Your task to perform on an android device: Do I have any events this weekend? Image 0: 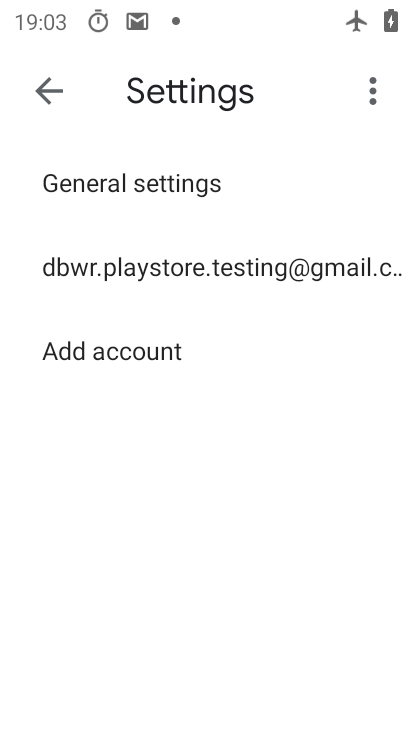
Step 0: press home button
Your task to perform on an android device: Do I have any events this weekend? Image 1: 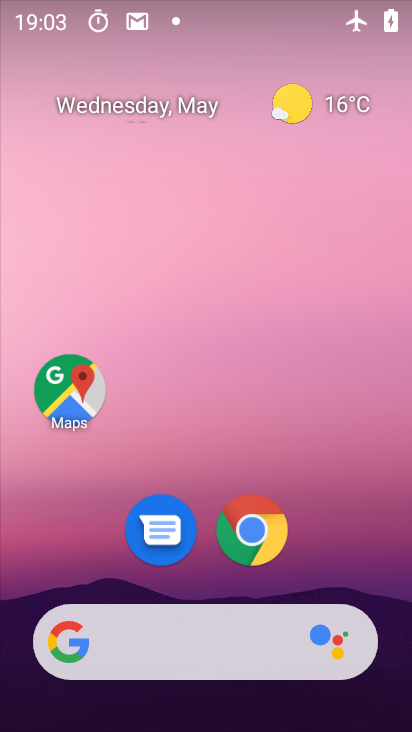
Step 1: drag from (204, 491) to (274, 166)
Your task to perform on an android device: Do I have any events this weekend? Image 2: 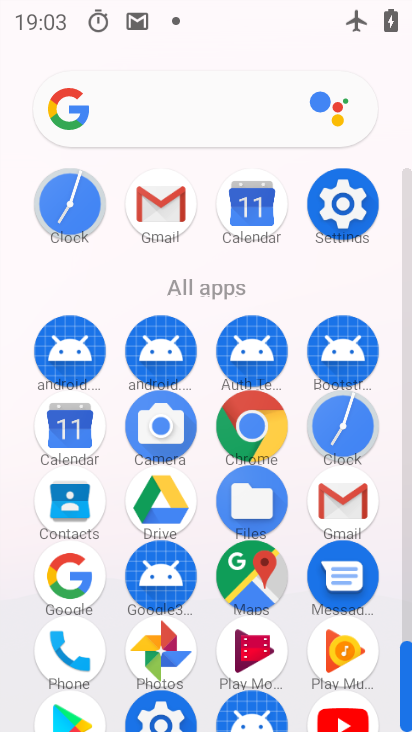
Step 2: click (68, 436)
Your task to perform on an android device: Do I have any events this weekend? Image 3: 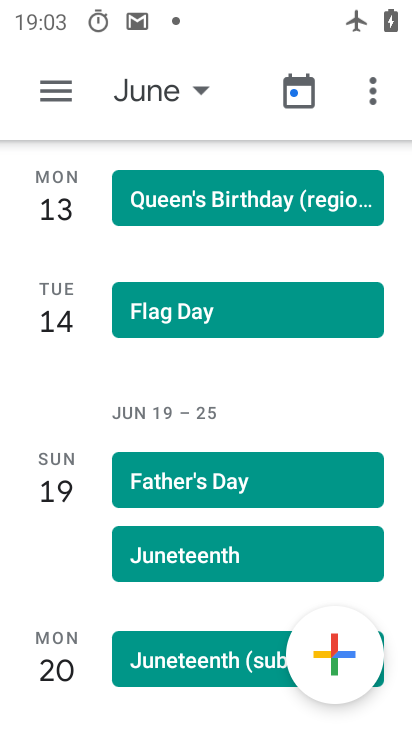
Step 3: click (172, 97)
Your task to perform on an android device: Do I have any events this weekend? Image 4: 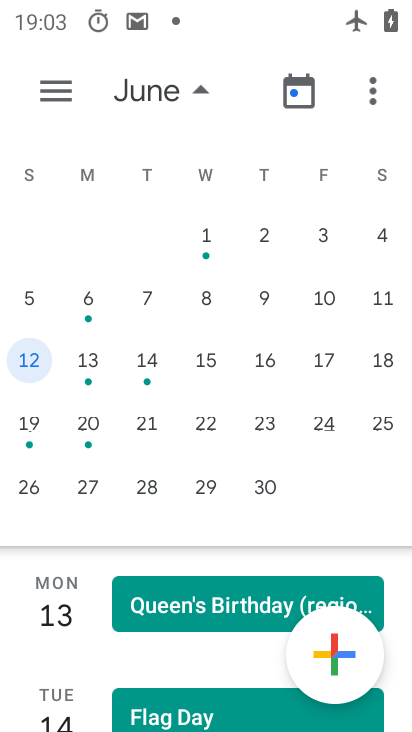
Step 4: drag from (83, 295) to (349, 284)
Your task to perform on an android device: Do I have any events this weekend? Image 5: 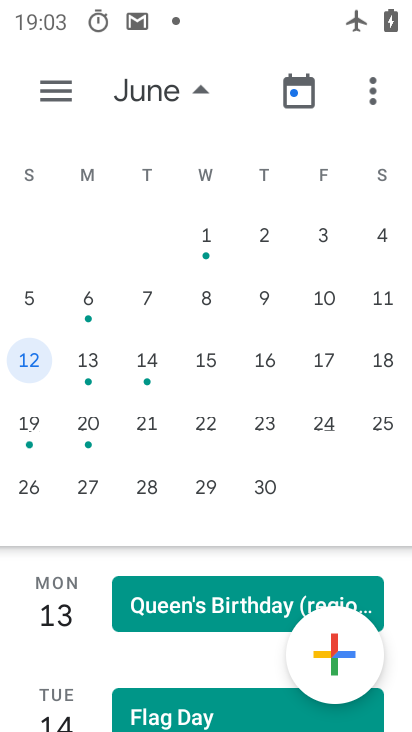
Step 5: drag from (68, 319) to (358, 305)
Your task to perform on an android device: Do I have any events this weekend? Image 6: 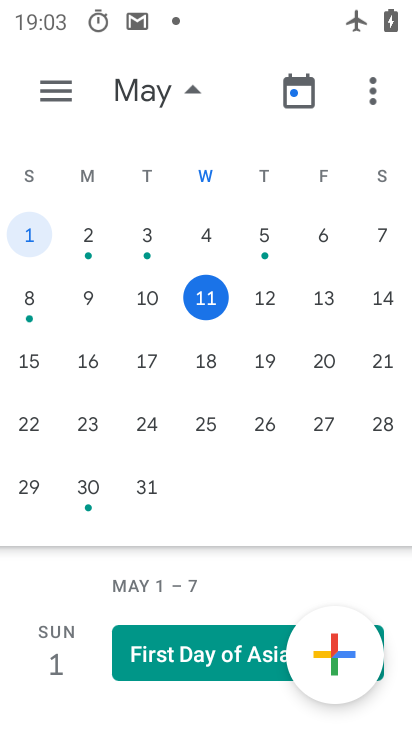
Step 6: click (375, 291)
Your task to perform on an android device: Do I have any events this weekend? Image 7: 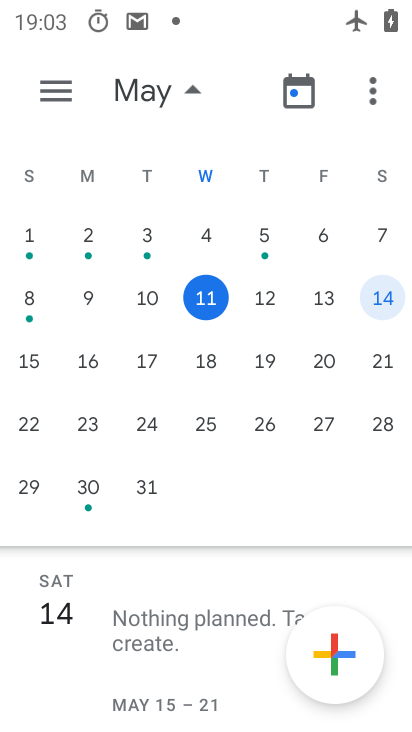
Step 7: click (22, 362)
Your task to perform on an android device: Do I have any events this weekend? Image 8: 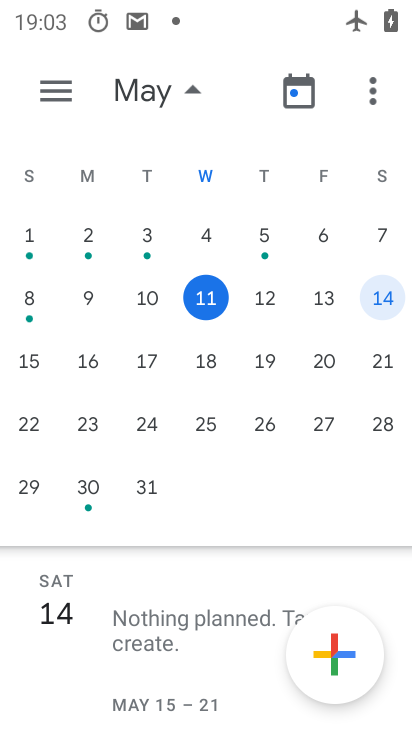
Step 8: click (41, 362)
Your task to perform on an android device: Do I have any events this weekend? Image 9: 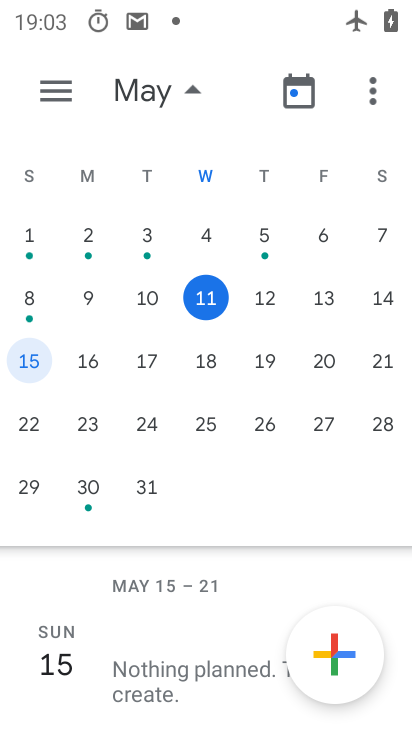
Step 9: task complete